Your task to perform on an android device: Go to wifi settings Image 0: 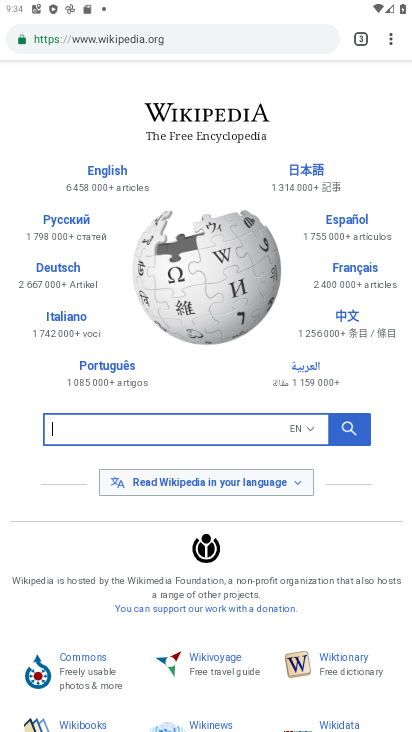
Step 0: press home button
Your task to perform on an android device: Go to wifi settings Image 1: 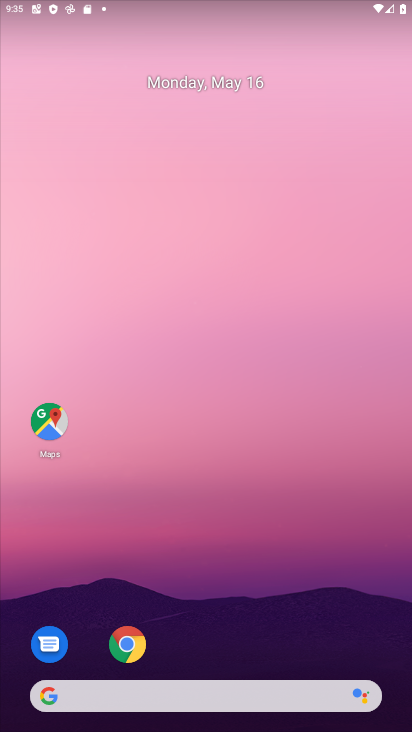
Step 1: drag from (86, 652) to (210, 4)
Your task to perform on an android device: Go to wifi settings Image 2: 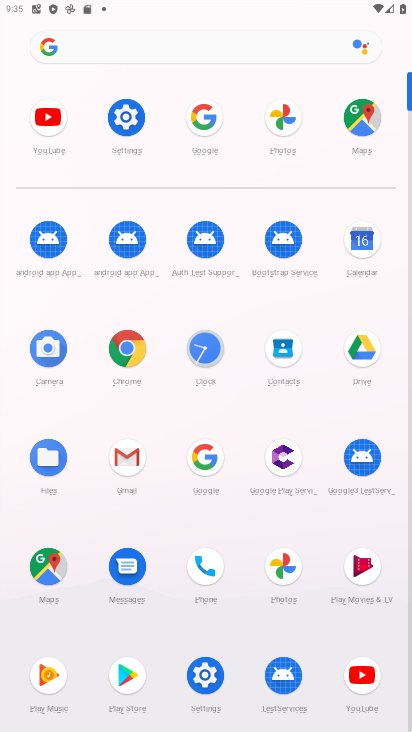
Step 2: click (141, 114)
Your task to perform on an android device: Go to wifi settings Image 3: 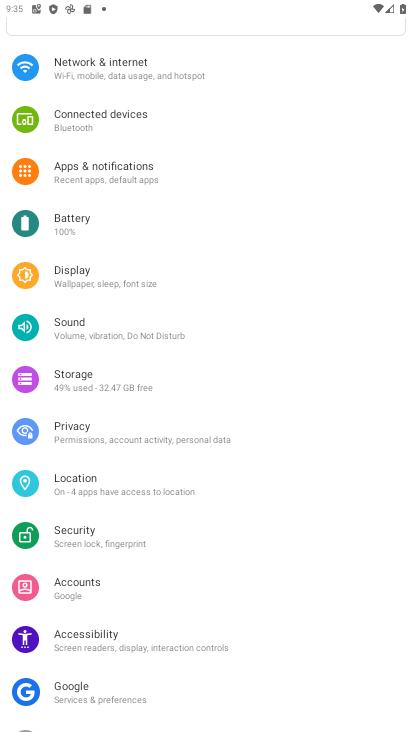
Step 3: drag from (289, 124) to (311, 626)
Your task to perform on an android device: Go to wifi settings Image 4: 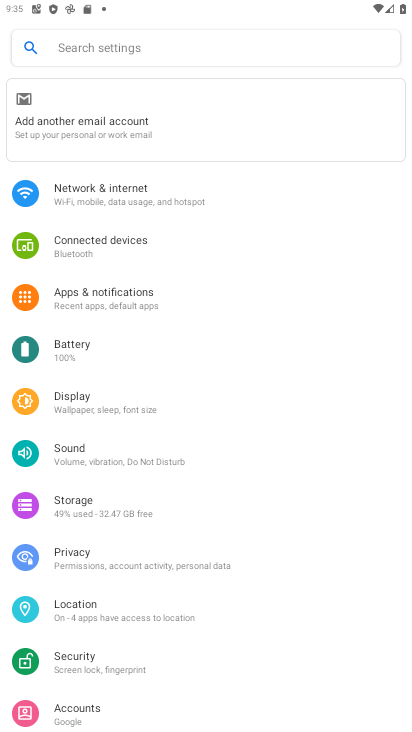
Step 4: click (239, 198)
Your task to perform on an android device: Go to wifi settings Image 5: 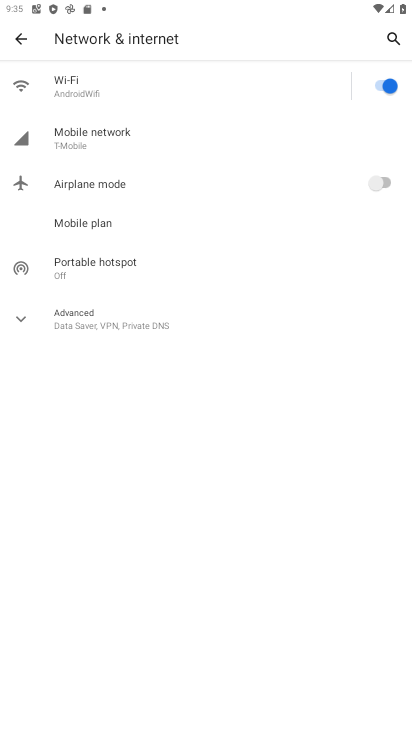
Step 5: click (144, 82)
Your task to perform on an android device: Go to wifi settings Image 6: 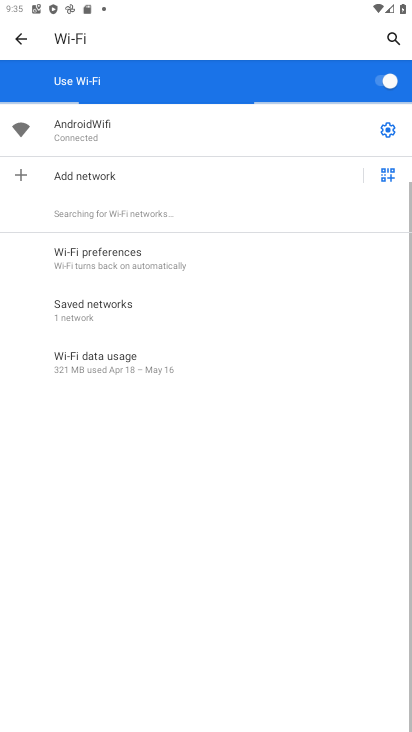
Step 6: click (386, 124)
Your task to perform on an android device: Go to wifi settings Image 7: 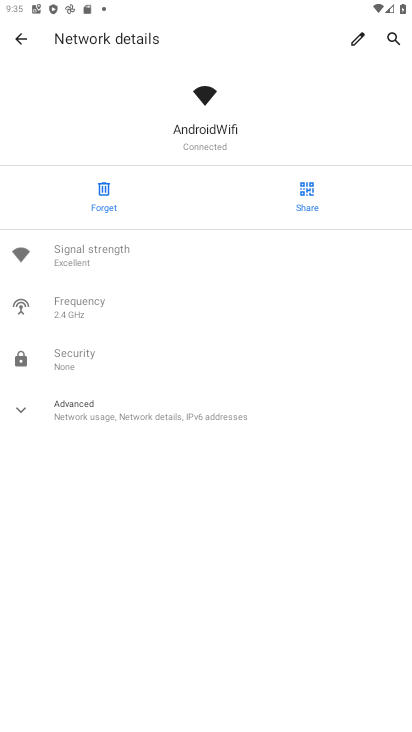
Step 7: task complete